Your task to perform on an android device: search for starred emails in the gmail app Image 0: 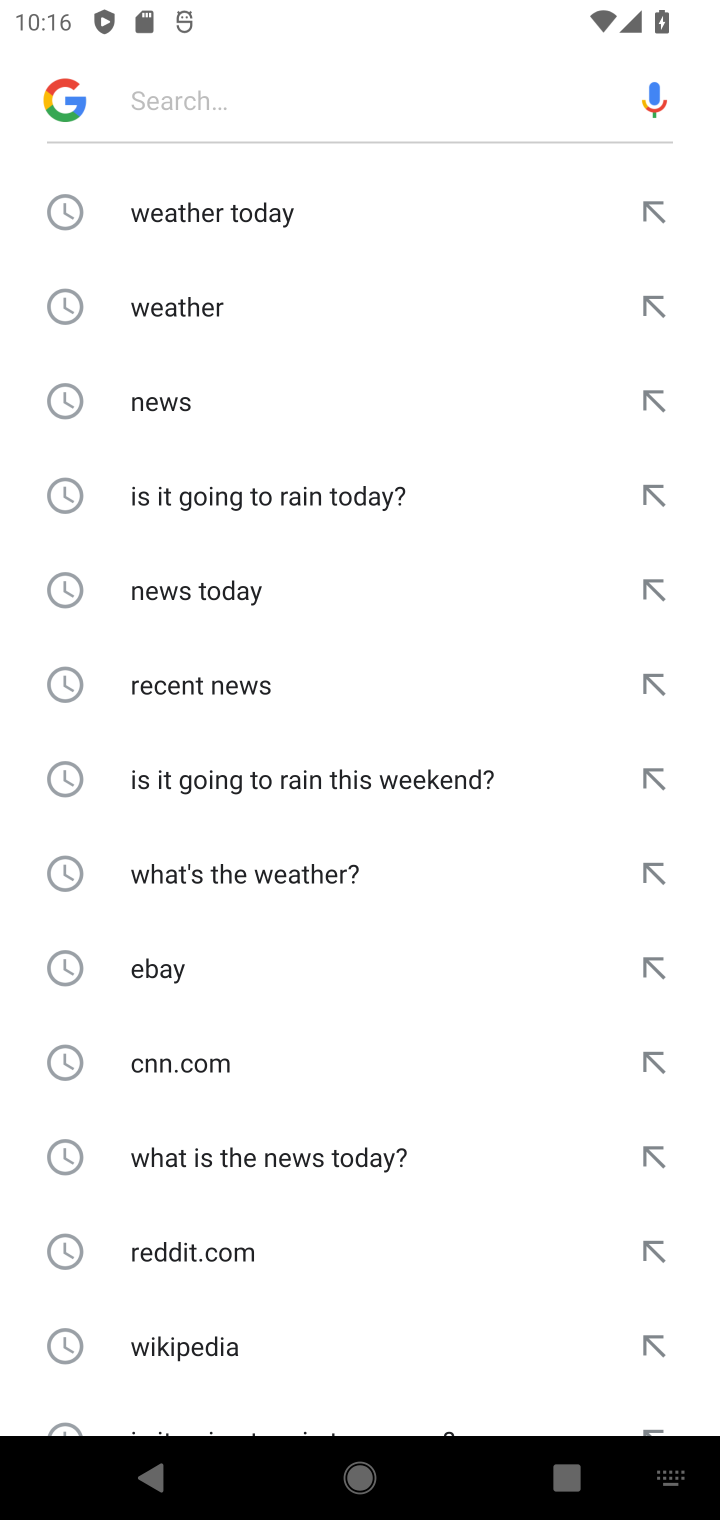
Step 0: press home button
Your task to perform on an android device: search for starred emails in the gmail app Image 1: 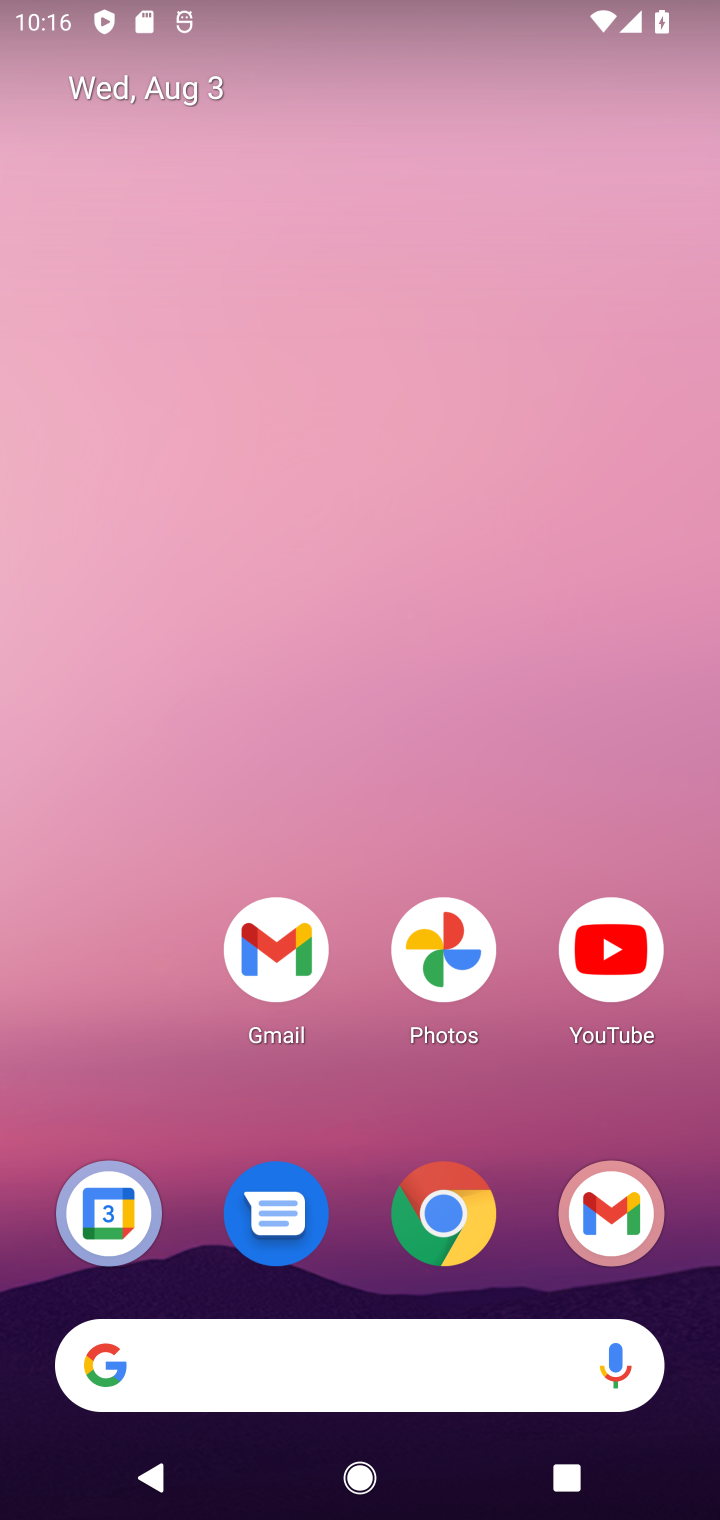
Step 1: click (281, 956)
Your task to perform on an android device: search for starred emails in the gmail app Image 2: 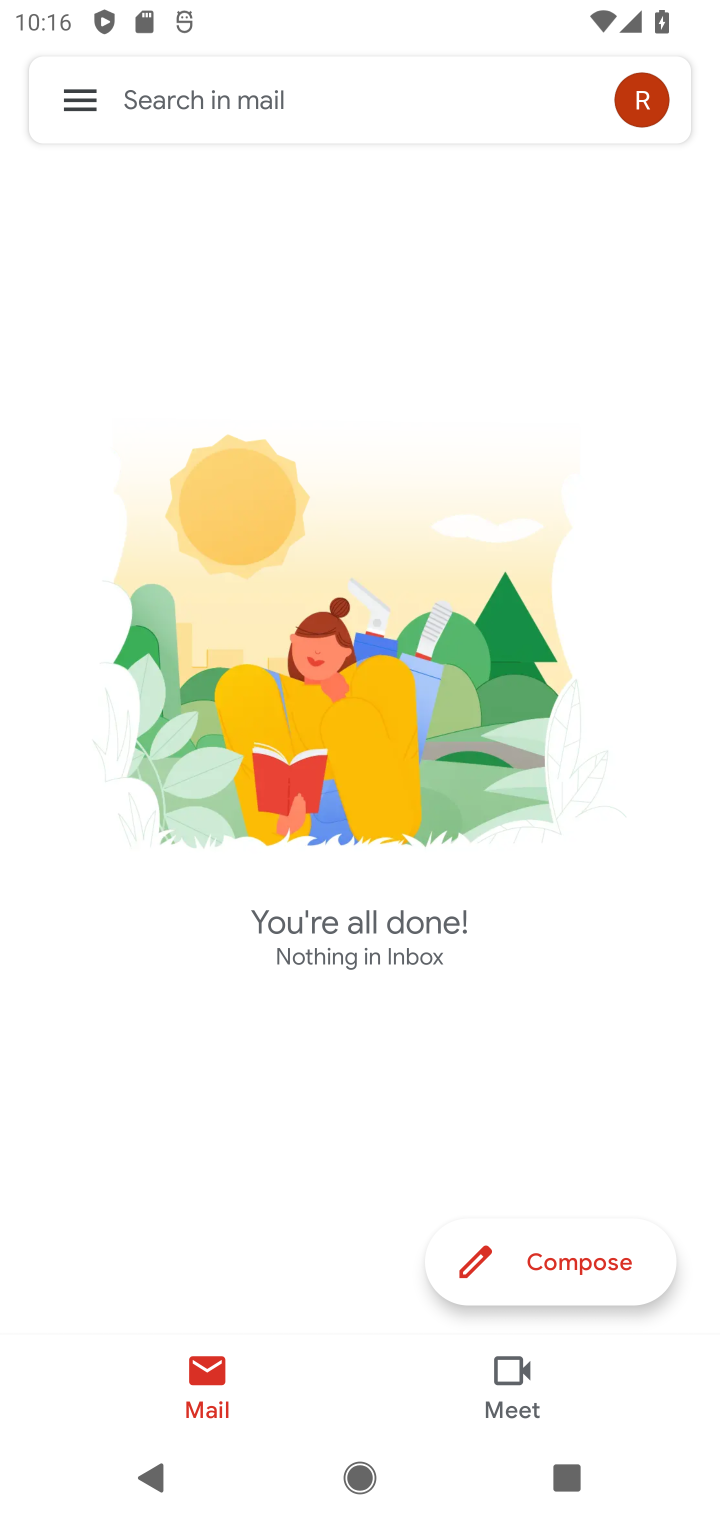
Step 2: click (102, 106)
Your task to perform on an android device: search for starred emails in the gmail app Image 3: 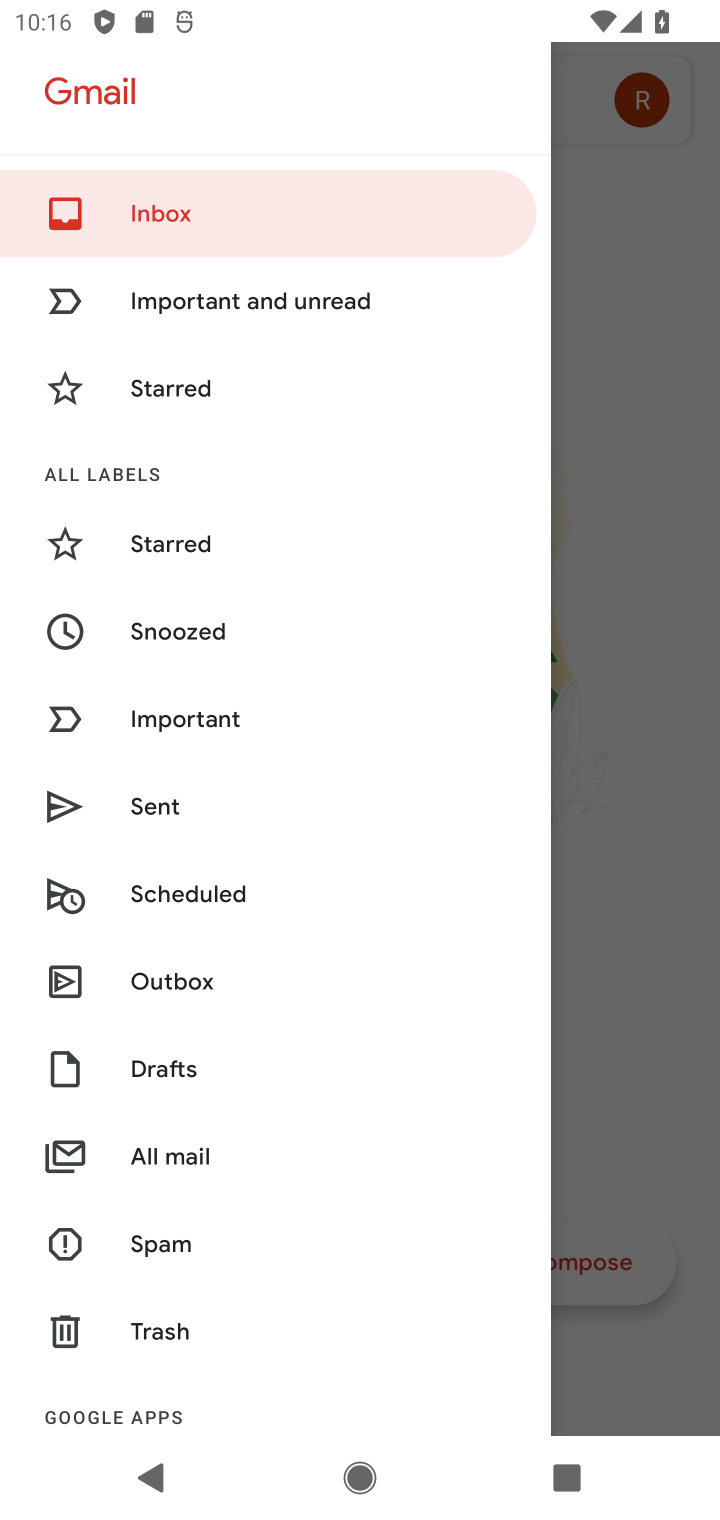
Step 3: click (175, 379)
Your task to perform on an android device: search for starred emails in the gmail app Image 4: 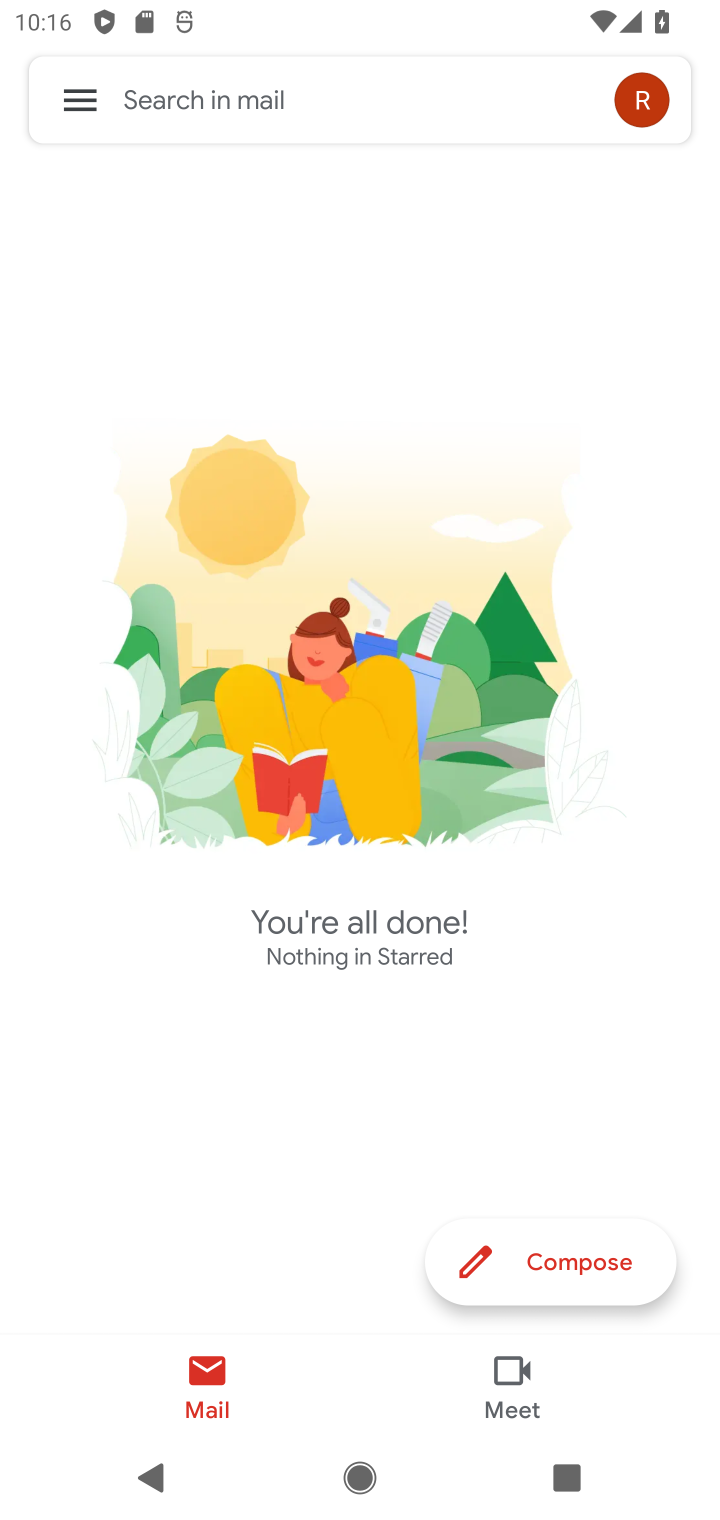
Step 4: task complete